Your task to perform on an android device: Open my contact list Image 0: 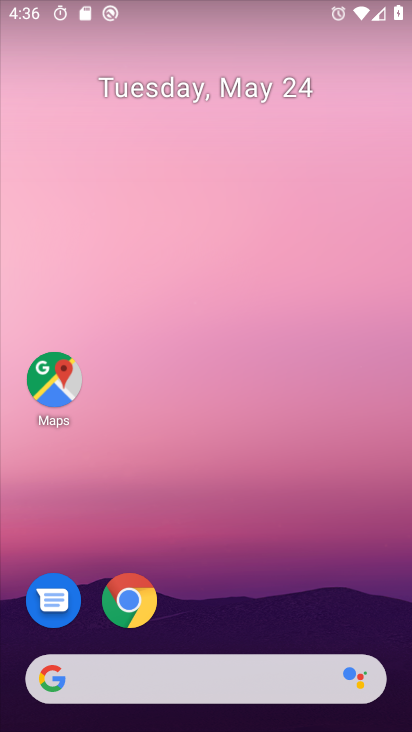
Step 0: drag from (263, 671) to (288, 0)
Your task to perform on an android device: Open my contact list Image 1: 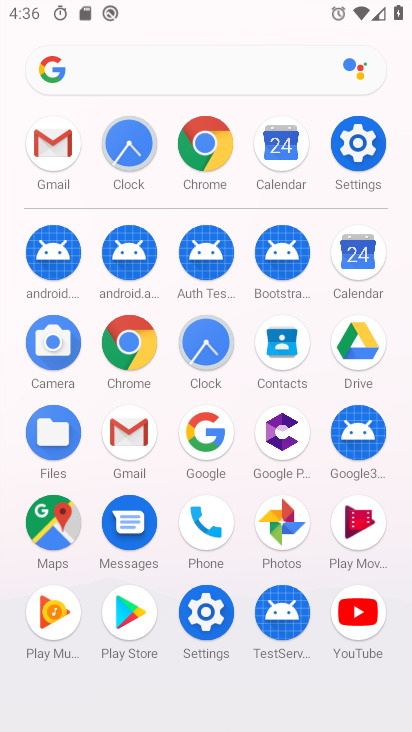
Step 1: click (281, 353)
Your task to perform on an android device: Open my contact list Image 2: 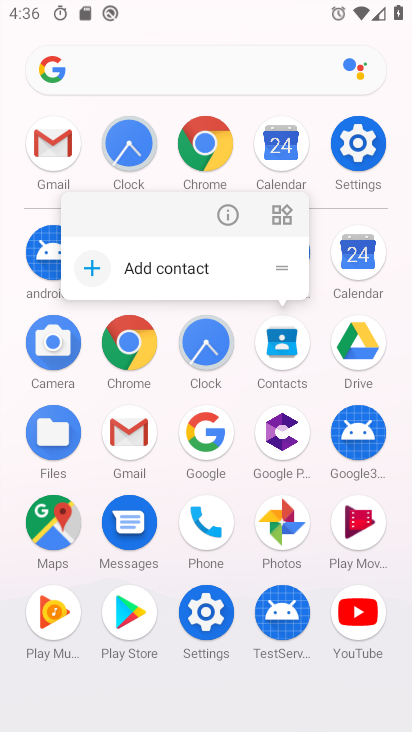
Step 2: click (281, 353)
Your task to perform on an android device: Open my contact list Image 3: 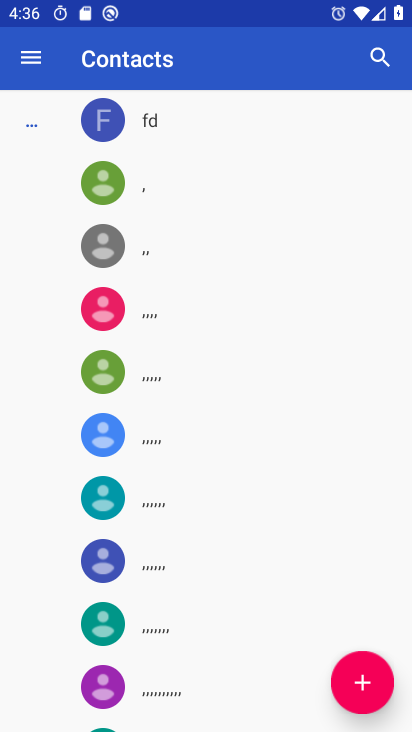
Step 3: task complete